Your task to perform on an android device: See recent photos Image 0: 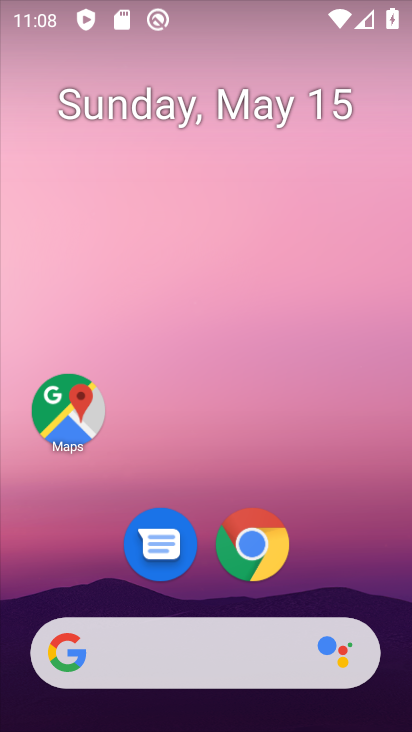
Step 0: drag from (402, 628) to (314, 15)
Your task to perform on an android device: See recent photos Image 1: 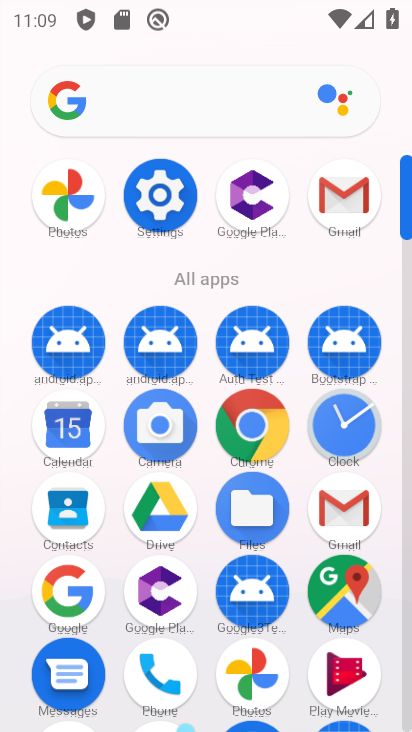
Step 1: click (73, 187)
Your task to perform on an android device: See recent photos Image 2: 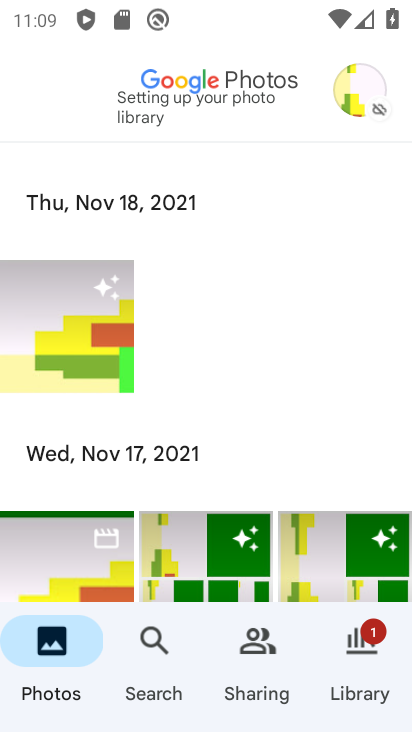
Step 2: task complete